Your task to perform on an android device: Go to battery settings Image 0: 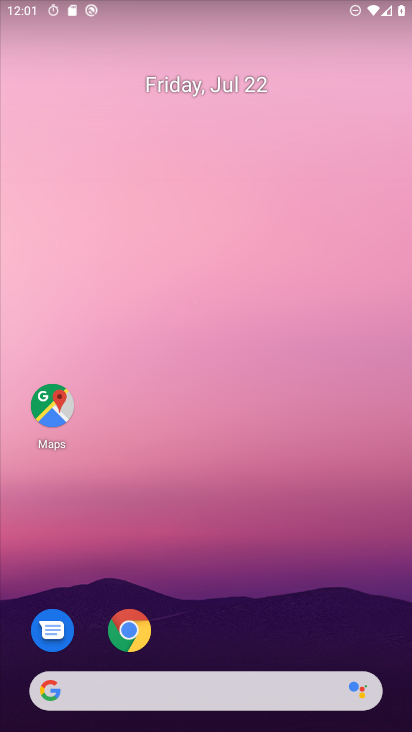
Step 0: press home button
Your task to perform on an android device: Go to battery settings Image 1: 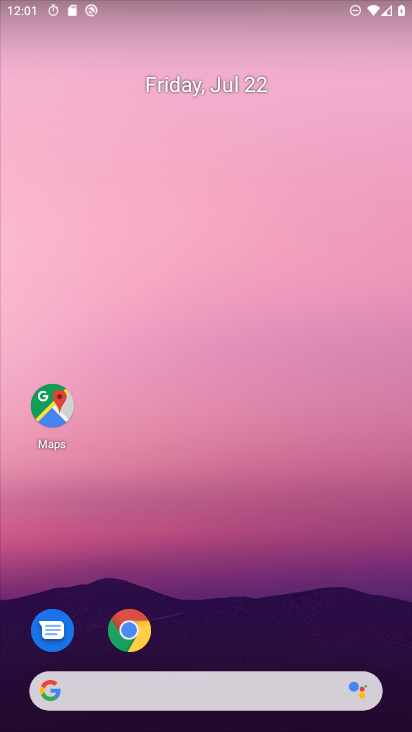
Step 1: drag from (297, 630) to (262, 79)
Your task to perform on an android device: Go to battery settings Image 2: 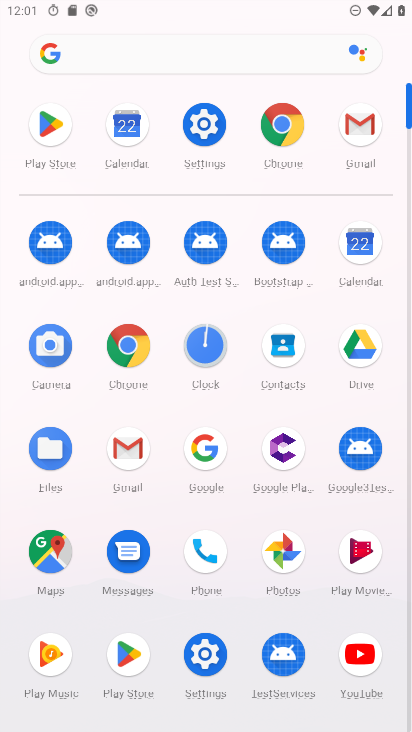
Step 2: click (201, 131)
Your task to perform on an android device: Go to battery settings Image 3: 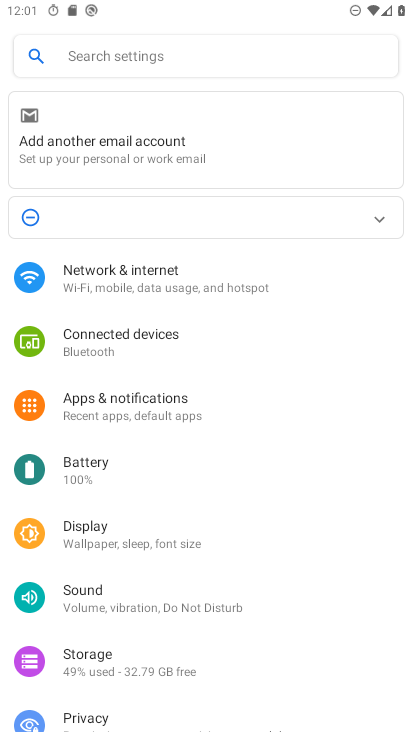
Step 3: click (98, 360)
Your task to perform on an android device: Go to battery settings Image 4: 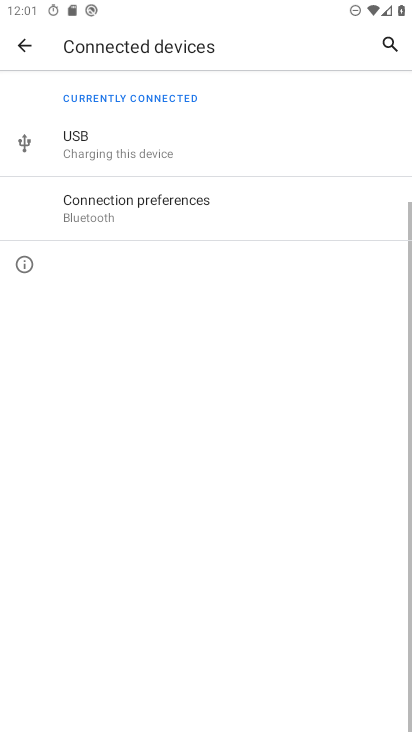
Step 4: click (22, 46)
Your task to perform on an android device: Go to battery settings Image 5: 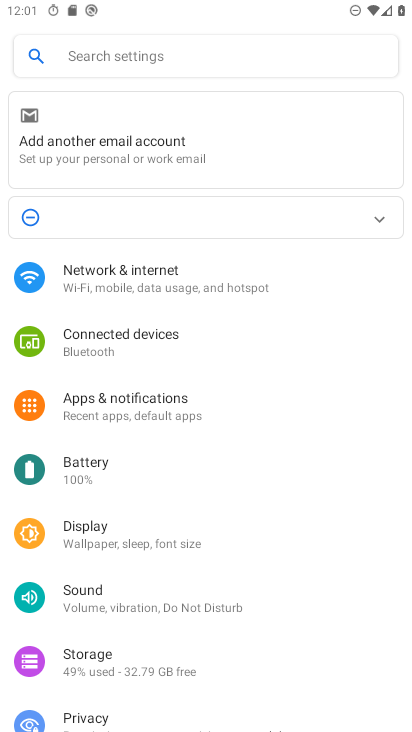
Step 5: click (88, 465)
Your task to perform on an android device: Go to battery settings Image 6: 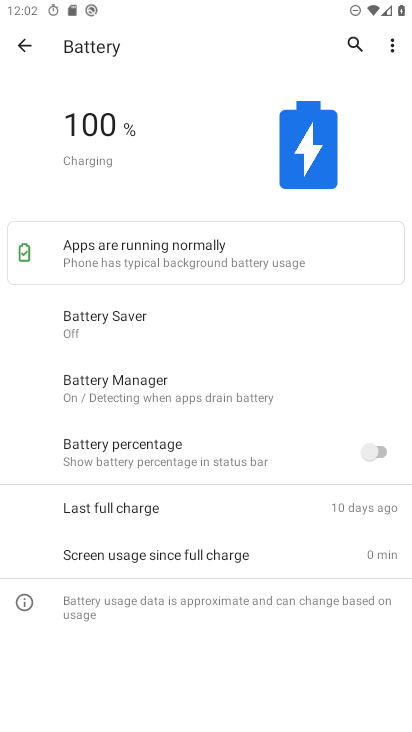
Step 6: task complete